Your task to perform on an android device: Open battery settings Image 0: 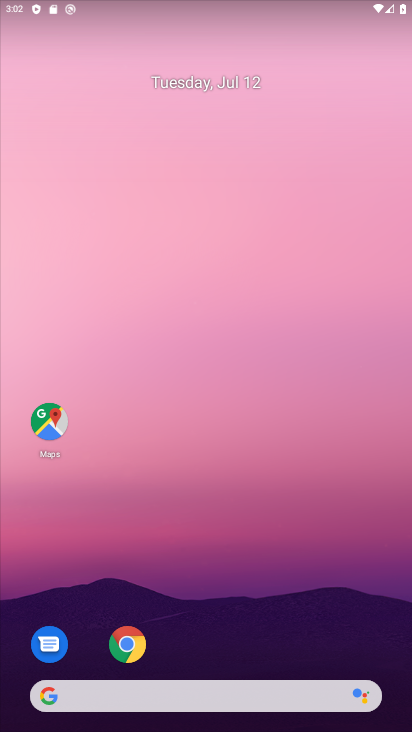
Step 0: drag from (331, 654) to (208, 118)
Your task to perform on an android device: Open battery settings Image 1: 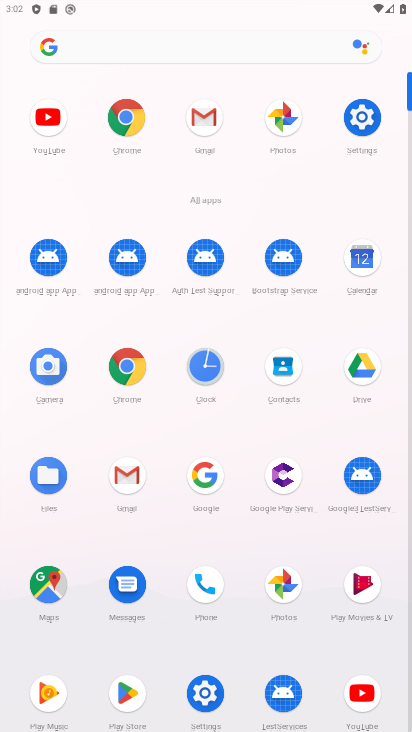
Step 1: click (363, 115)
Your task to perform on an android device: Open battery settings Image 2: 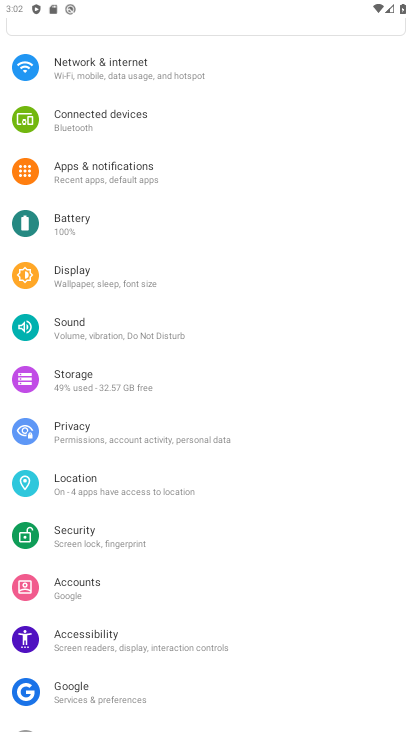
Step 2: click (62, 227)
Your task to perform on an android device: Open battery settings Image 3: 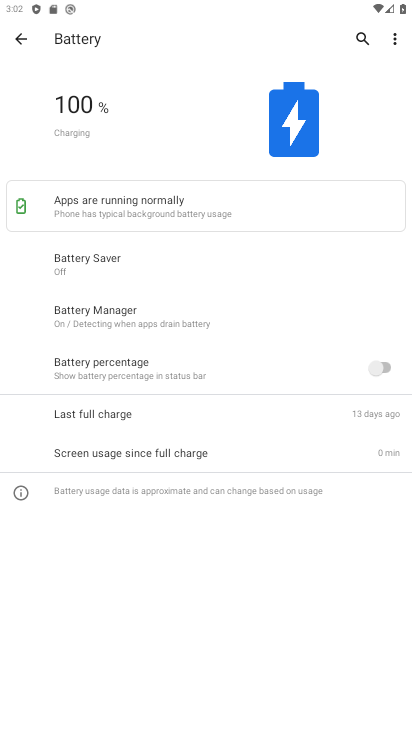
Step 3: task complete